Your task to perform on an android device: What is the news today? Image 0: 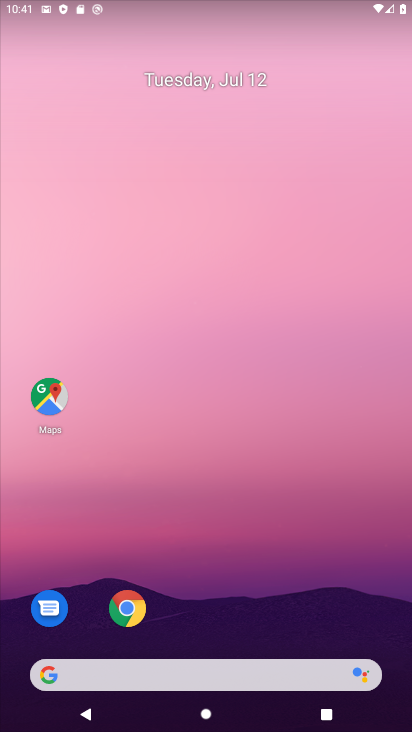
Step 0: click (188, 672)
Your task to perform on an android device: What is the news today? Image 1: 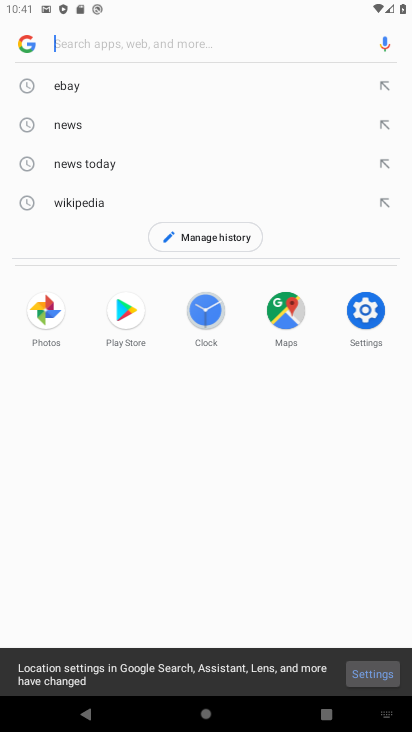
Step 1: click (67, 117)
Your task to perform on an android device: What is the news today? Image 2: 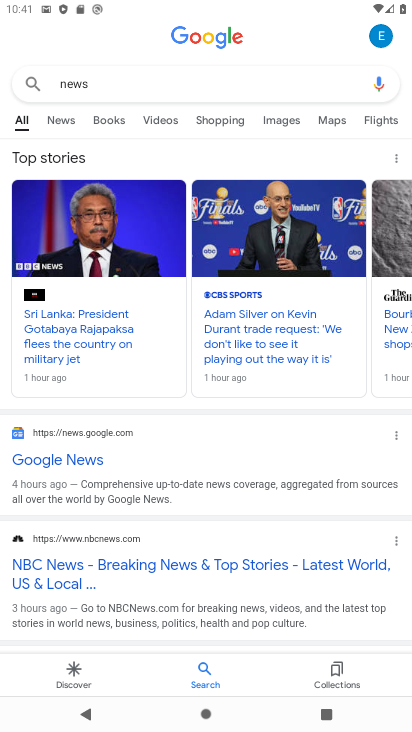
Step 2: task complete